Your task to perform on an android device: Go to Yahoo.com Image 0: 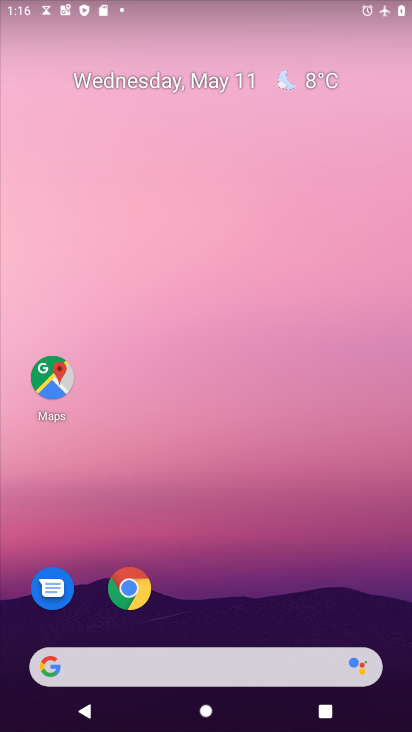
Step 0: click (140, 597)
Your task to perform on an android device: Go to Yahoo.com Image 1: 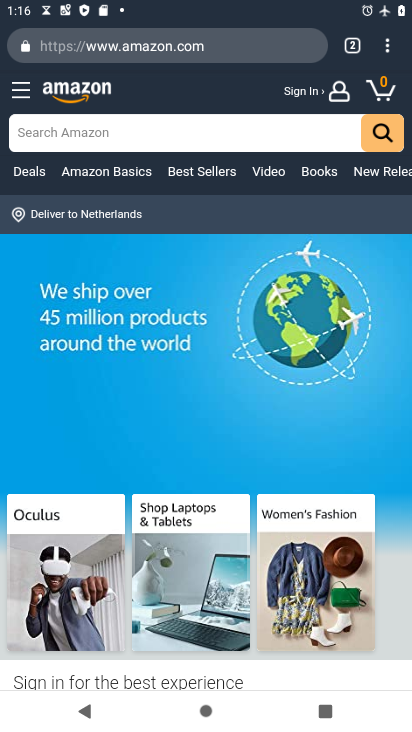
Step 1: click (138, 54)
Your task to perform on an android device: Go to Yahoo.com Image 2: 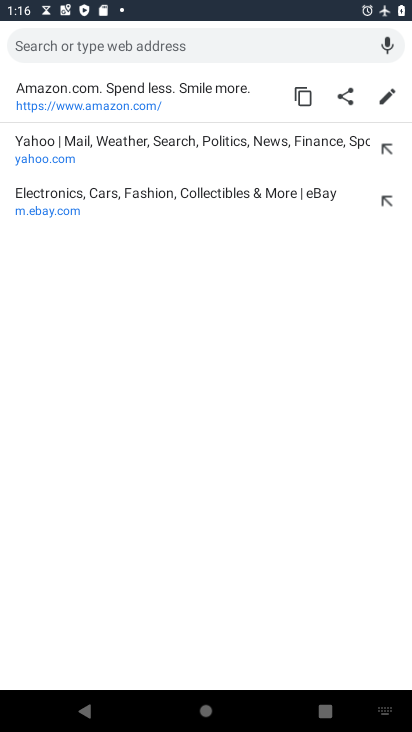
Step 2: click (73, 160)
Your task to perform on an android device: Go to Yahoo.com Image 3: 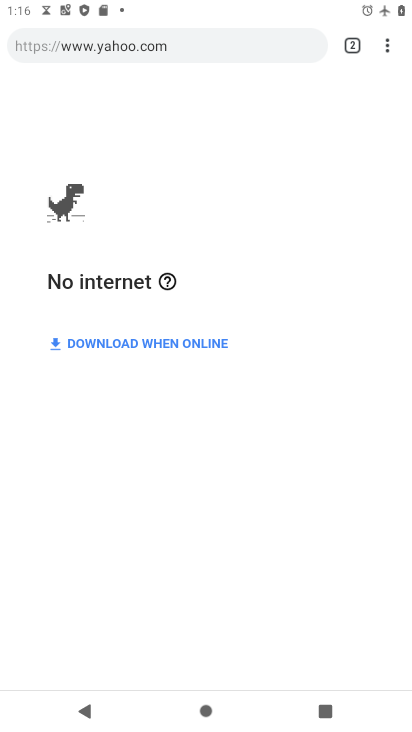
Step 3: task complete